Your task to perform on an android device: Open settings on Google Maps Image 0: 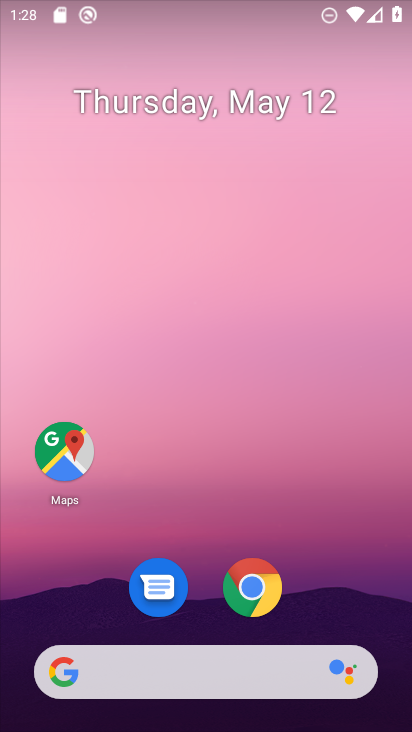
Step 0: click (66, 454)
Your task to perform on an android device: Open settings on Google Maps Image 1: 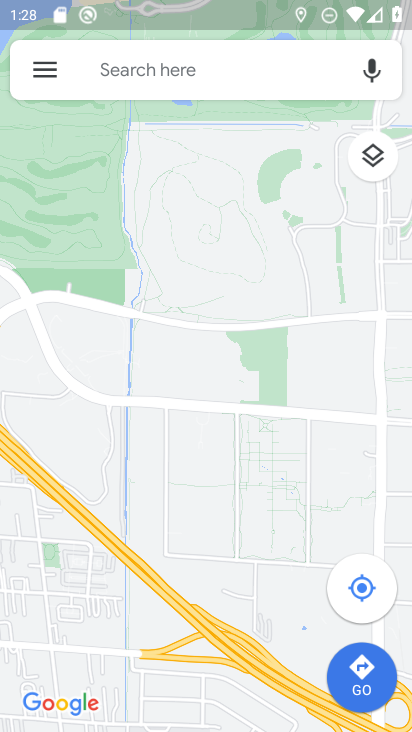
Step 1: click (50, 69)
Your task to perform on an android device: Open settings on Google Maps Image 2: 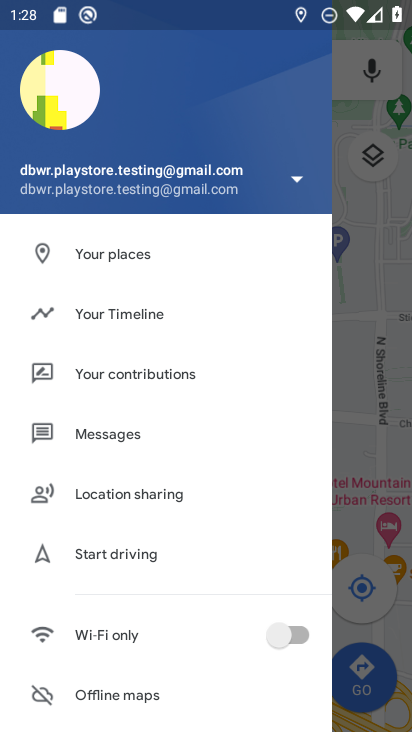
Step 2: drag from (162, 523) to (184, 357)
Your task to perform on an android device: Open settings on Google Maps Image 3: 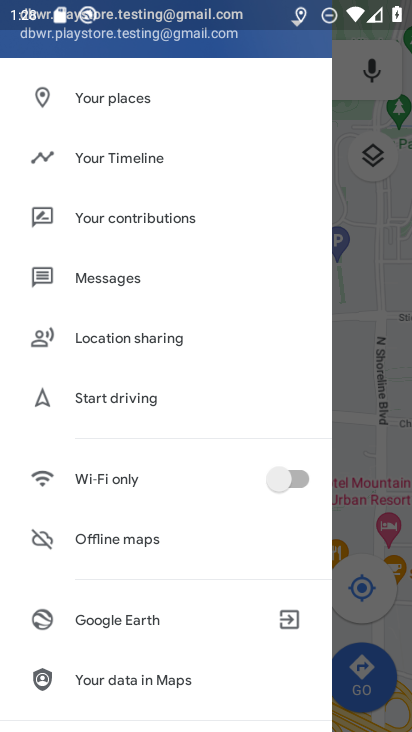
Step 3: drag from (134, 563) to (169, 398)
Your task to perform on an android device: Open settings on Google Maps Image 4: 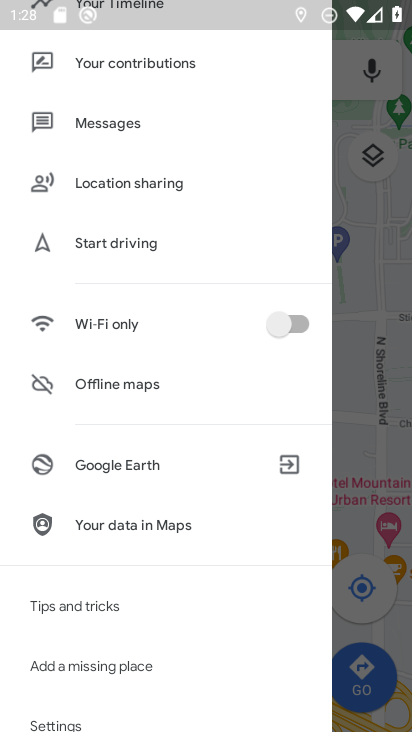
Step 4: drag from (92, 638) to (166, 473)
Your task to perform on an android device: Open settings on Google Maps Image 5: 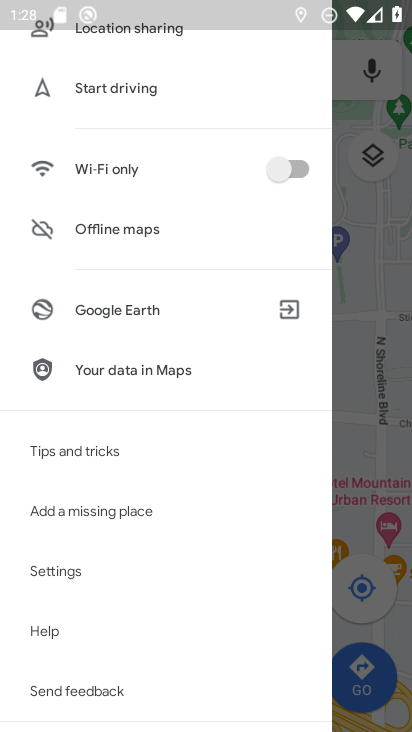
Step 5: click (72, 571)
Your task to perform on an android device: Open settings on Google Maps Image 6: 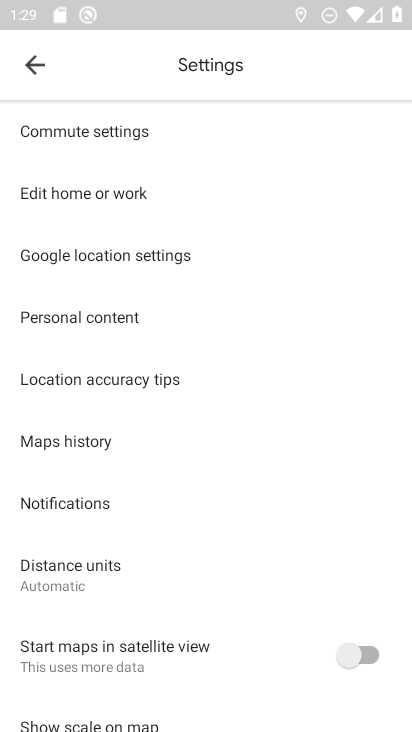
Step 6: task complete